Your task to perform on an android device: toggle pop-ups in chrome Image 0: 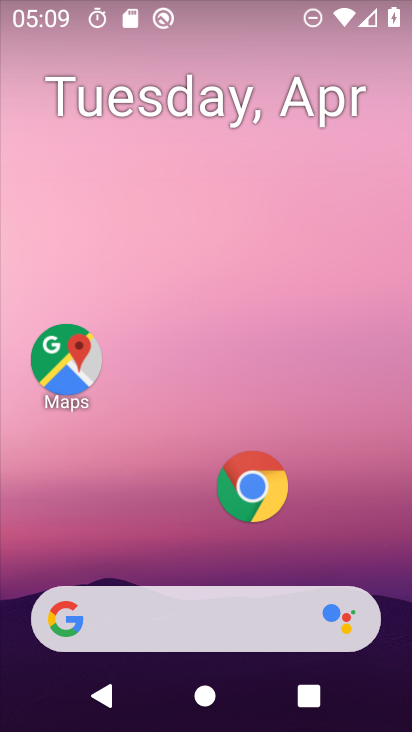
Step 0: click (280, 462)
Your task to perform on an android device: toggle pop-ups in chrome Image 1: 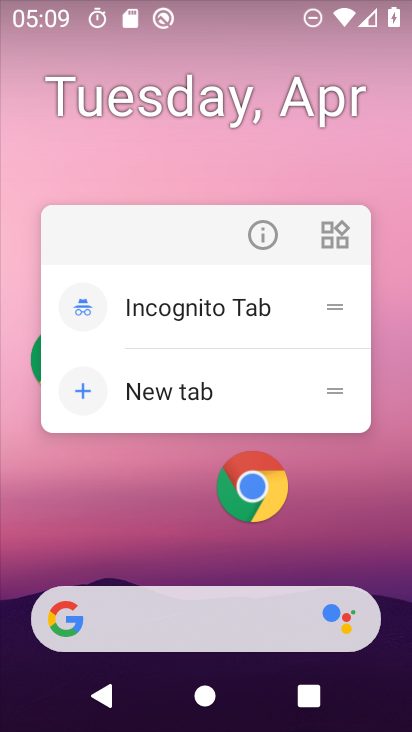
Step 1: click (264, 484)
Your task to perform on an android device: toggle pop-ups in chrome Image 2: 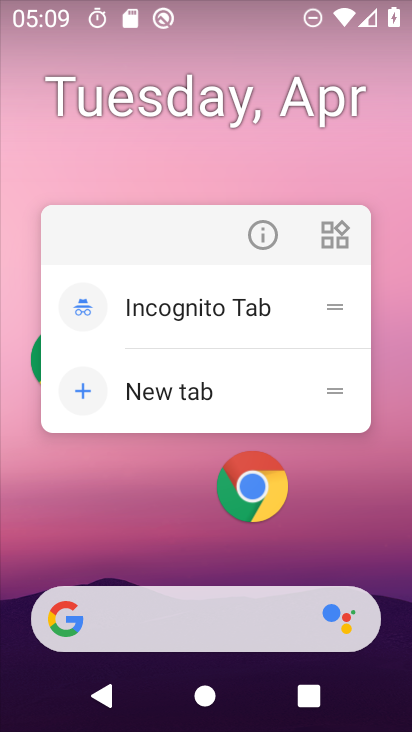
Step 2: click (253, 483)
Your task to perform on an android device: toggle pop-ups in chrome Image 3: 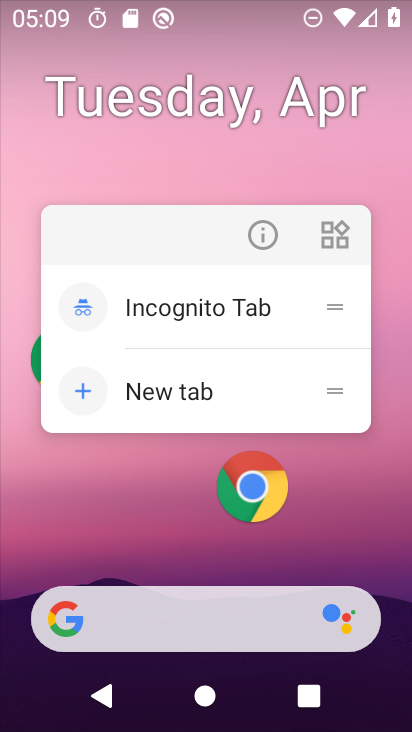
Step 3: click (253, 483)
Your task to perform on an android device: toggle pop-ups in chrome Image 4: 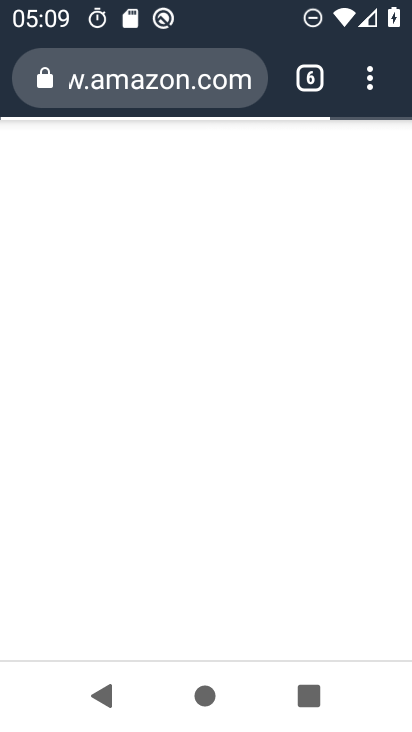
Step 4: click (371, 79)
Your task to perform on an android device: toggle pop-ups in chrome Image 5: 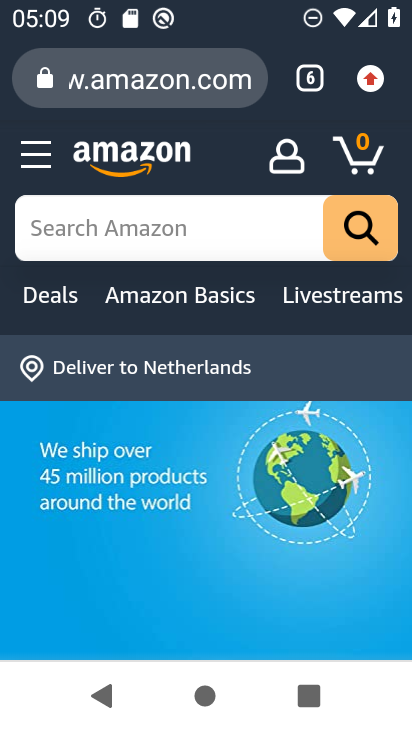
Step 5: click (368, 73)
Your task to perform on an android device: toggle pop-ups in chrome Image 6: 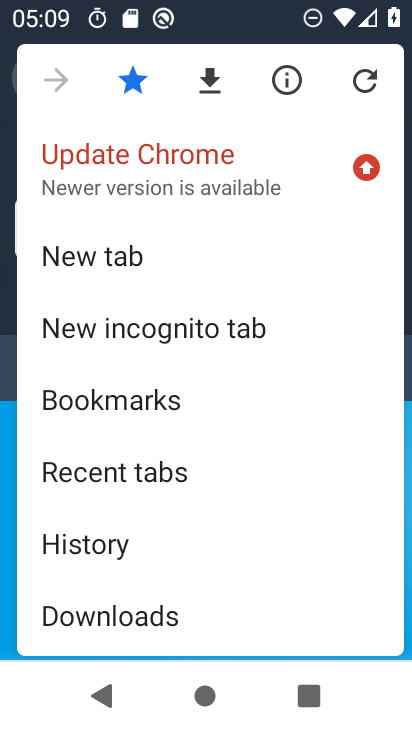
Step 6: drag from (99, 593) to (225, 123)
Your task to perform on an android device: toggle pop-ups in chrome Image 7: 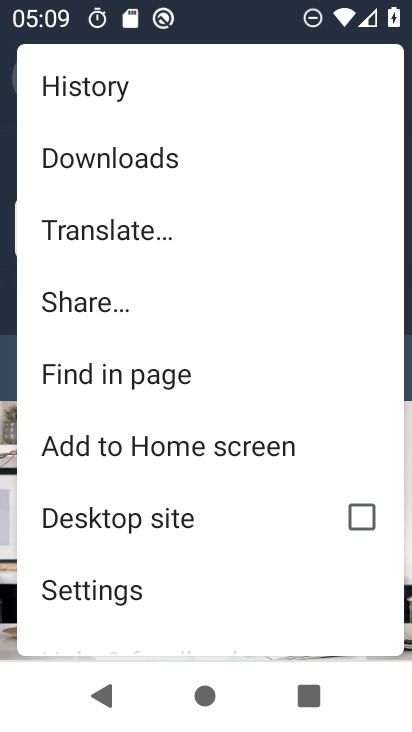
Step 7: click (90, 594)
Your task to perform on an android device: toggle pop-ups in chrome Image 8: 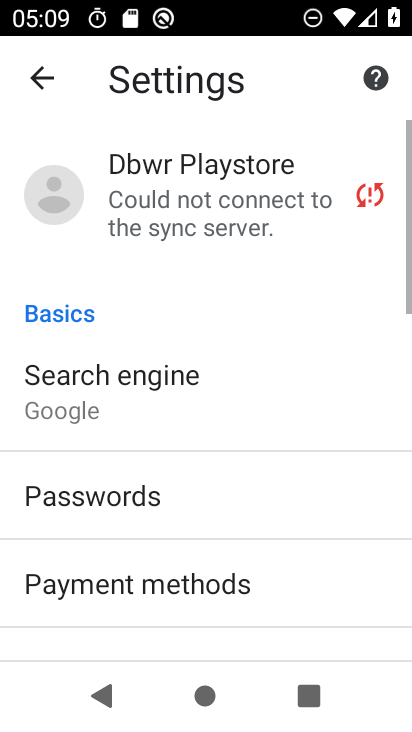
Step 8: drag from (121, 573) to (243, 60)
Your task to perform on an android device: toggle pop-ups in chrome Image 9: 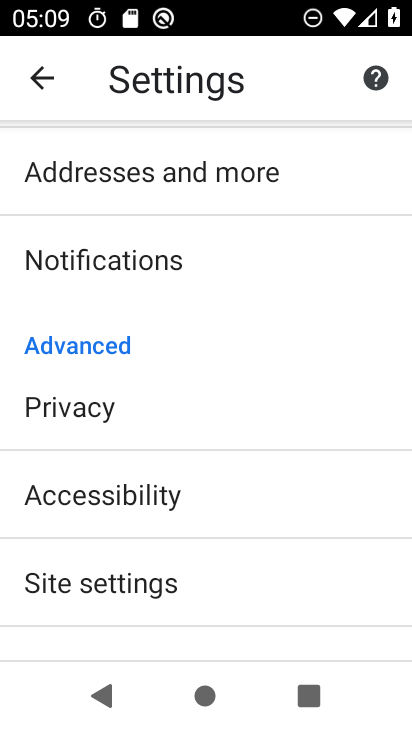
Step 9: click (103, 566)
Your task to perform on an android device: toggle pop-ups in chrome Image 10: 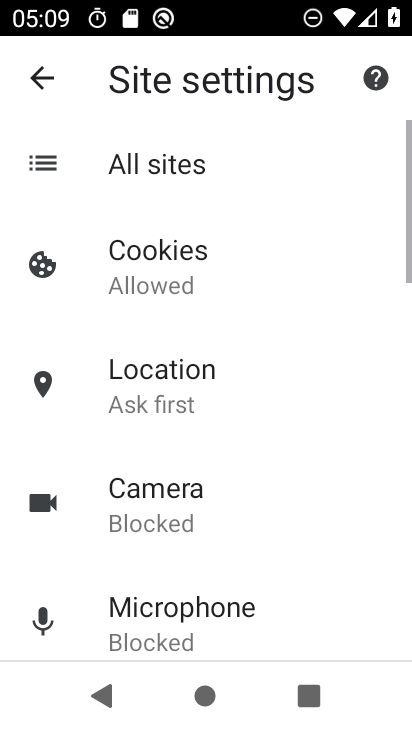
Step 10: drag from (240, 534) to (333, 46)
Your task to perform on an android device: toggle pop-ups in chrome Image 11: 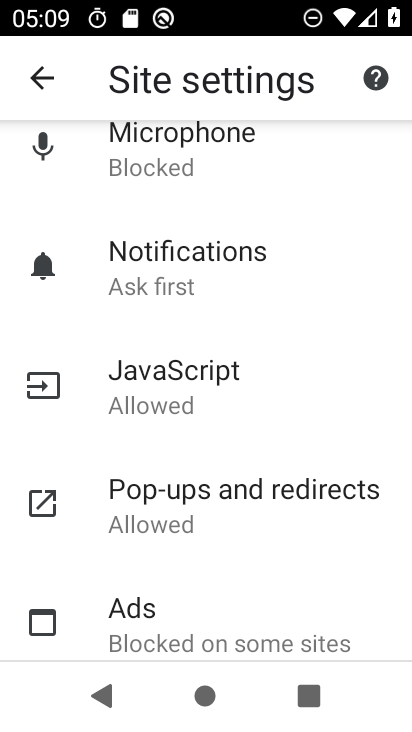
Step 11: click (179, 488)
Your task to perform on an android device: toggle pop-ups in chrome Image 12: 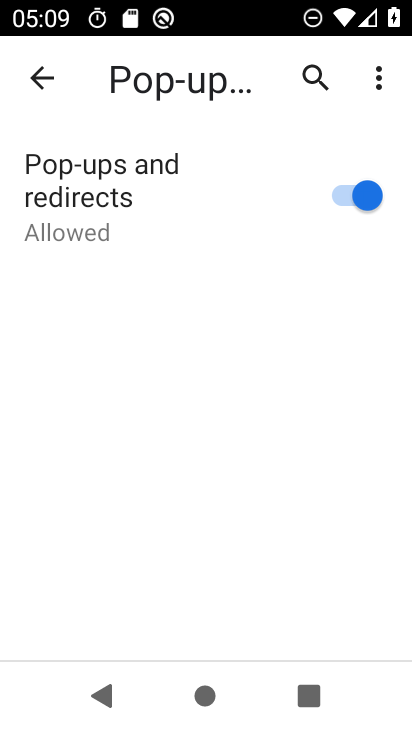
Step 12: click (358, 186)
Your task to perform on an android device: toggle pop-ups in chrome Image 13: 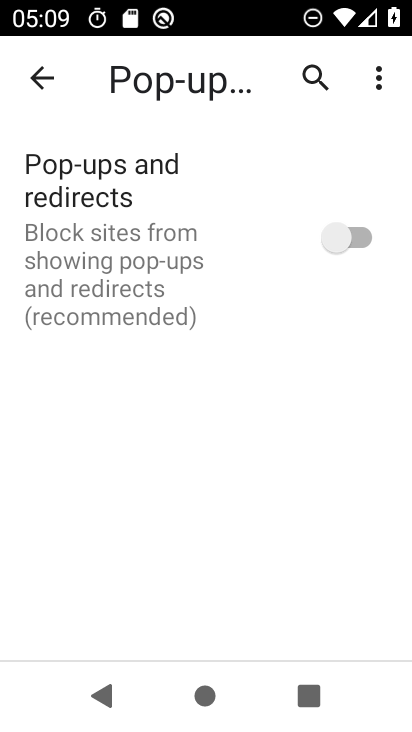
Step 13: task complete